Your task to perform on an android device: Open the map Image 0: 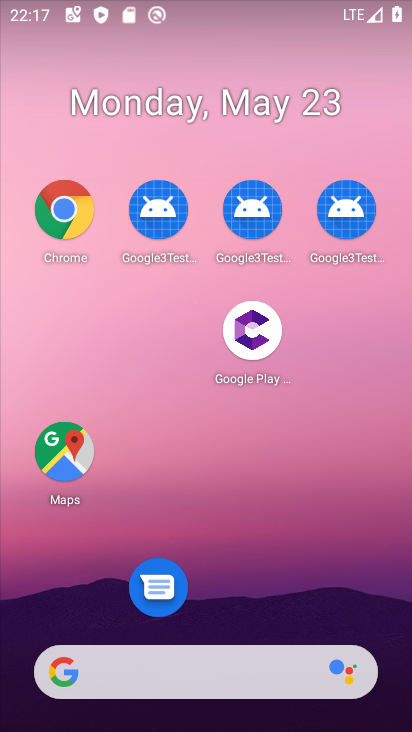
Step 0: click (66, 441)
Your task to perform on an android device: Open the map Image 1: 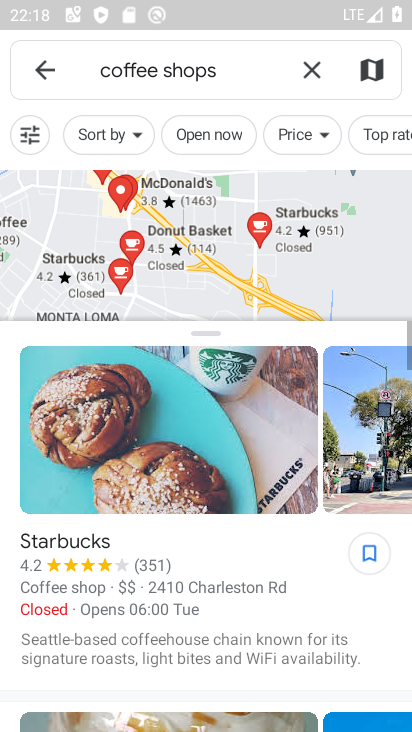
Step 1: task complete